Your task to perform on an android device: open chrome privacy settings Image 0: 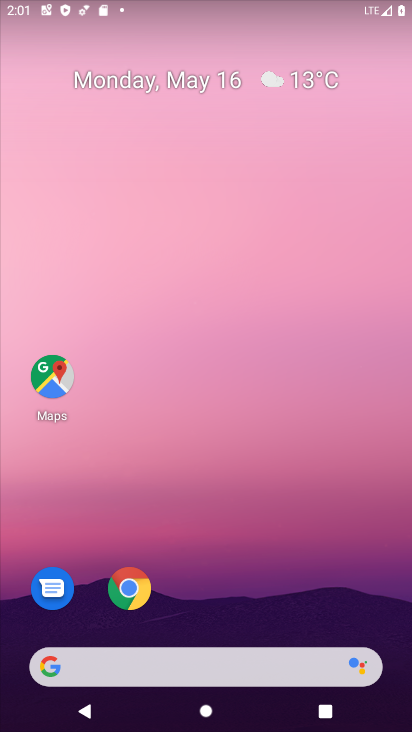
Step 0: click (134, 597)
Your task to perform on an android device: open chrome privacy settings Image 1: 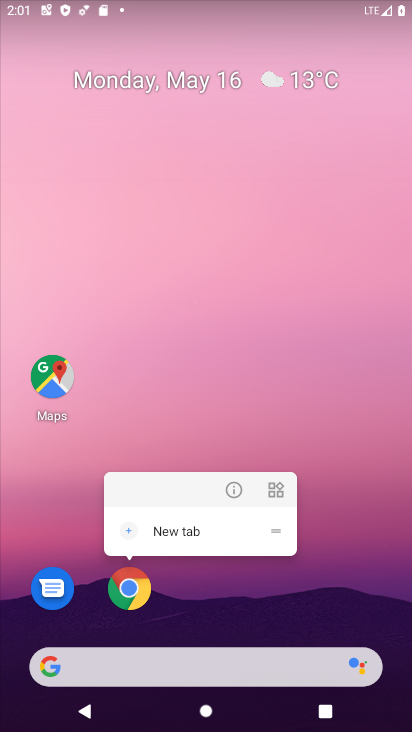
Step 1: click (140, 596)
Your task to perform on an android device: open chrome privacy settings Image 2: 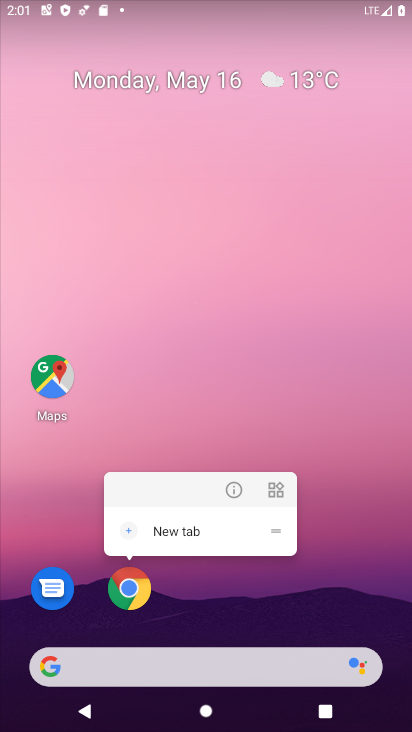
Step 2: click (125, 592)
Your task to perform on an android device: open chrome privacy settings Image 3: 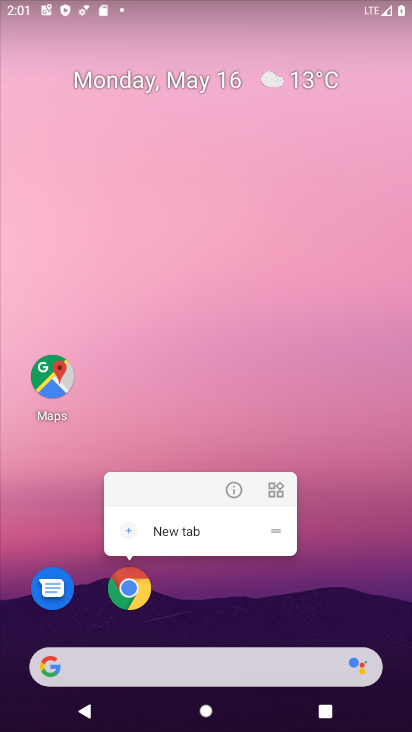
Step 3: click (130, 604)
Your task to perform on an android device: open chrome privacy settings Image 4: 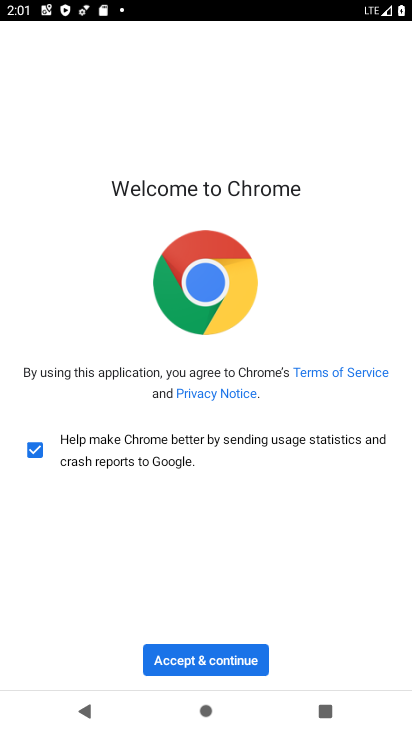
Step 4: click (239, 664)
Your task to perform on an android device: open chrome privacy settings Image 5: 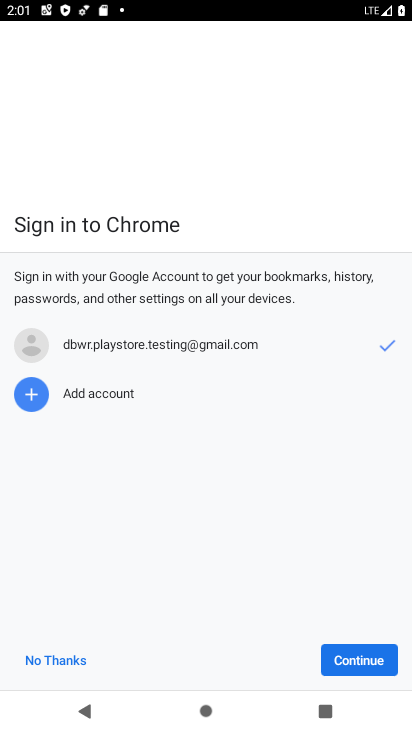
Step 5: click (348, 672)
Your task to perform on an android device: open chrome privacy settings Image 6: 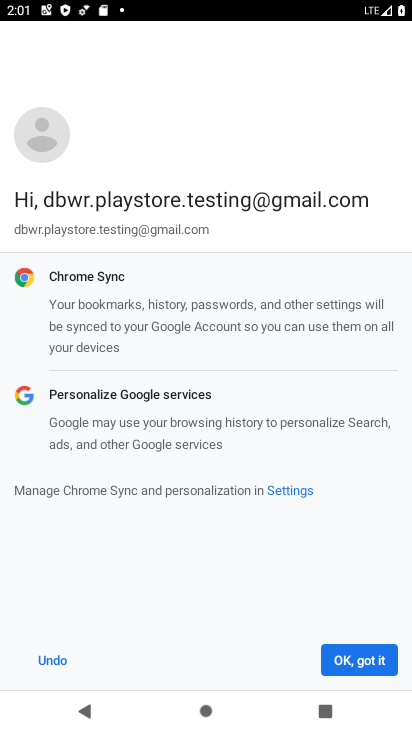
Step 6: click (350, 666)
Your task to perform on an android device: open chrome privacy settings Image 7: 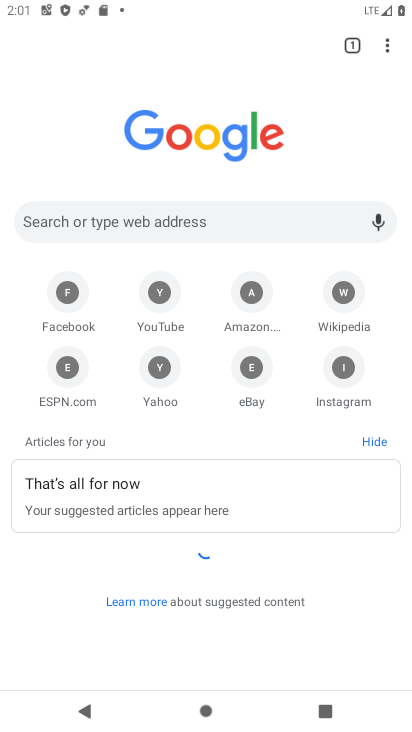
Step 7: drag from (384, 47) to (315, 372)
Your task to perform on an android device: open chrome privacy settings Image 8: 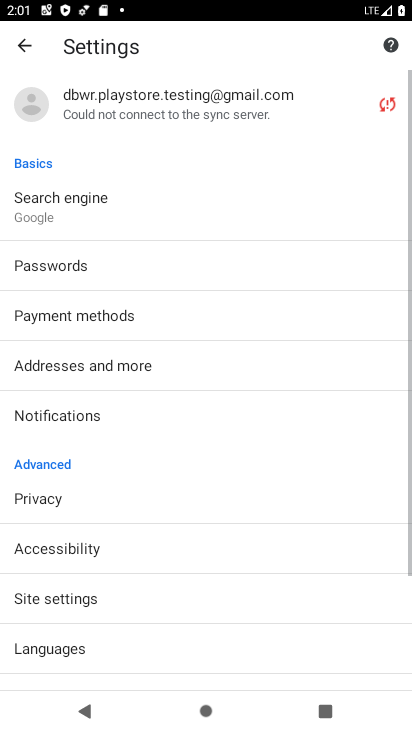
Step 8: click (96, 509)
Your task to perform on an android device: open chrome privacy settings Image 9: 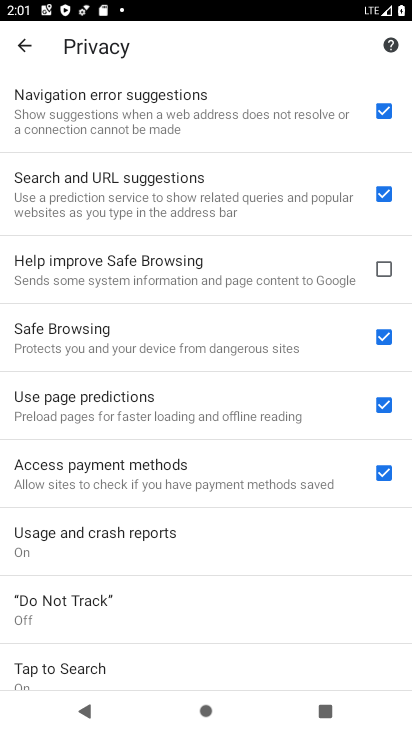
Step 9: task complete